Your task to perform on an android device: Go to notification settings Image 0: 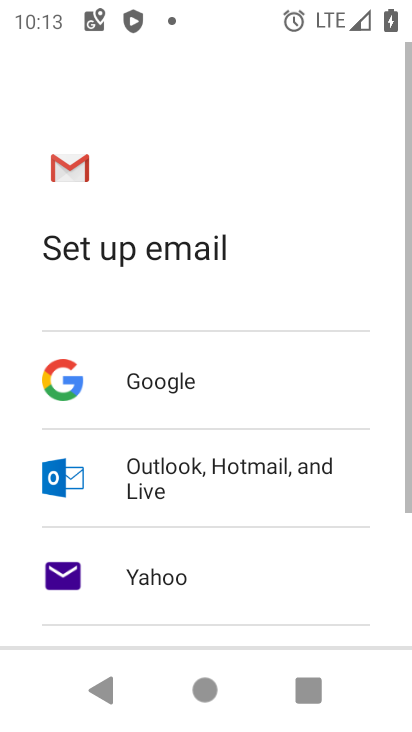
Step 0: press home button
Your task to perform on an android device: Go to notification settings Image 1: 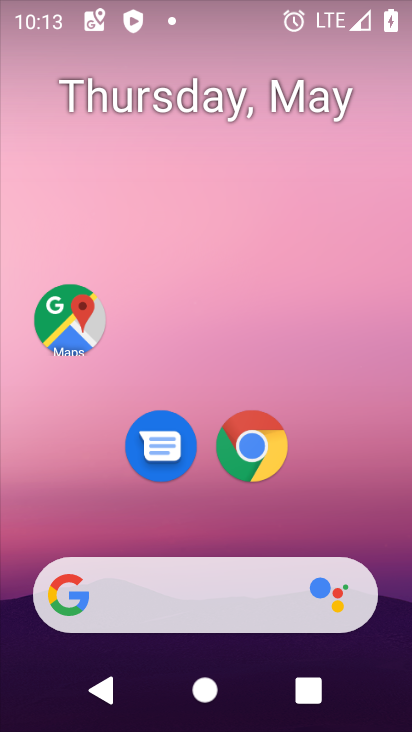
Step 1: drag from (392, 593) to (275, 133)
Your task to perform on an android device: Go to notification settings Image 2: 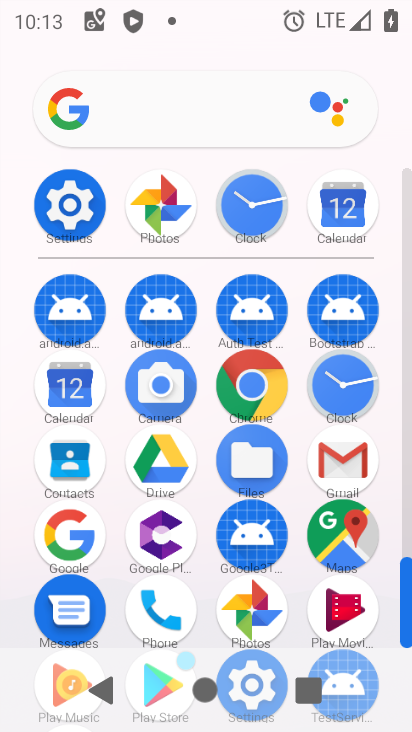
Step 2: drag from (406, 531) to (405, 477)
Your task to perform on an android device: Go to notification settings Image 3: 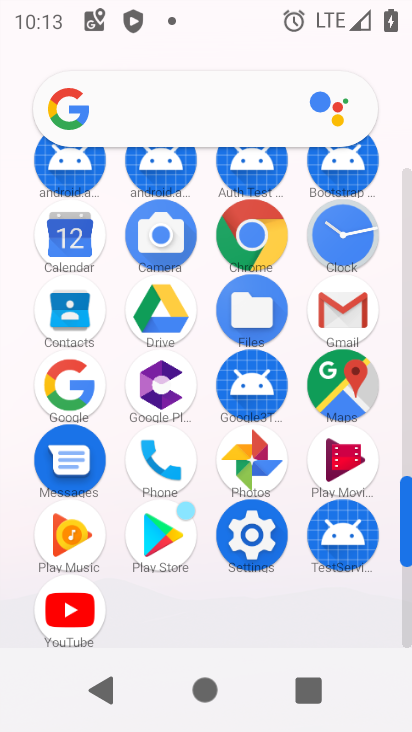
Step 3: click (245, 526)
Your task to perform on an android device: Go to notification settings Image 4: 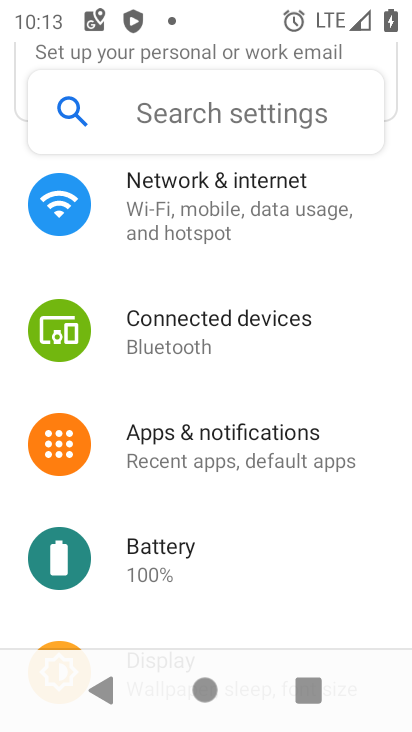
Step 4: click (149, 196)
Your task to perform on an android device: Go to notification settings Image 5: 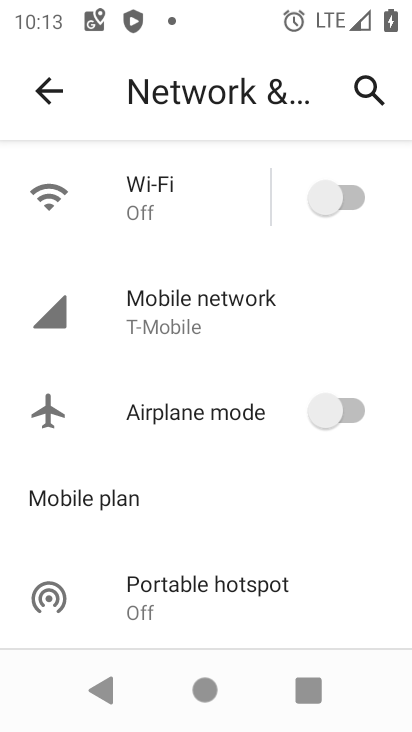
Step 5: drag from (227, 537) to (223, 188)
Your task to perform on an android device: Go to notification settings Image 6: 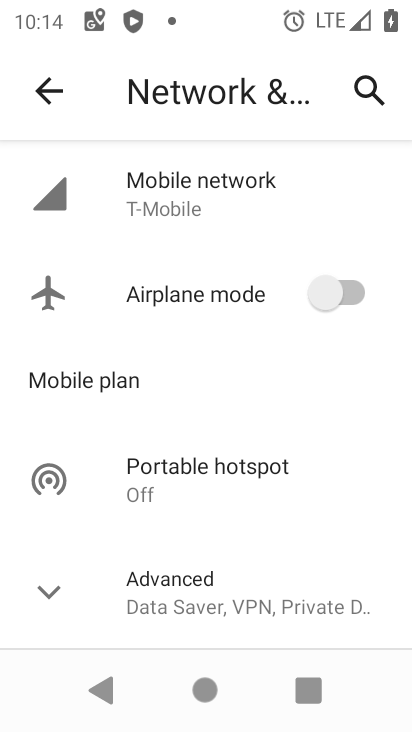
Step 6: click (48, 589)
Your task to perform on an android device: Go to notification settings Image 7: 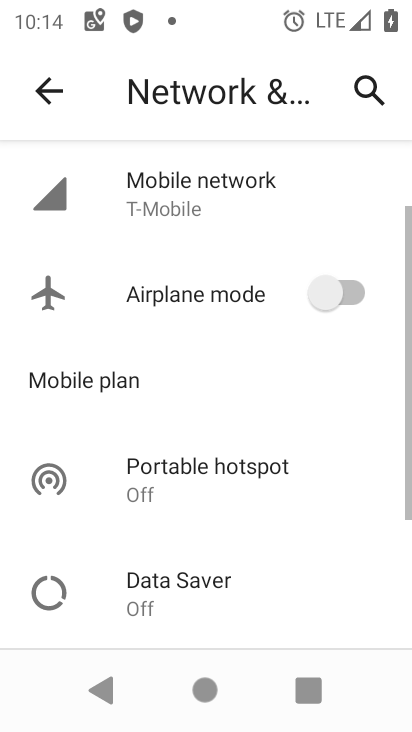
Step 7: task complete